Your task to perform on an android device: add a label to a message in the gmail app Image 0: 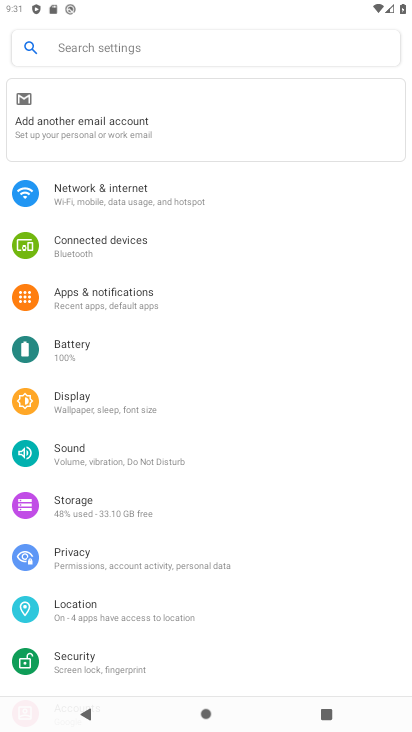
Step 0: press home button
Your task to perform on an android device: add a label to a message in the gmail app Image 1: 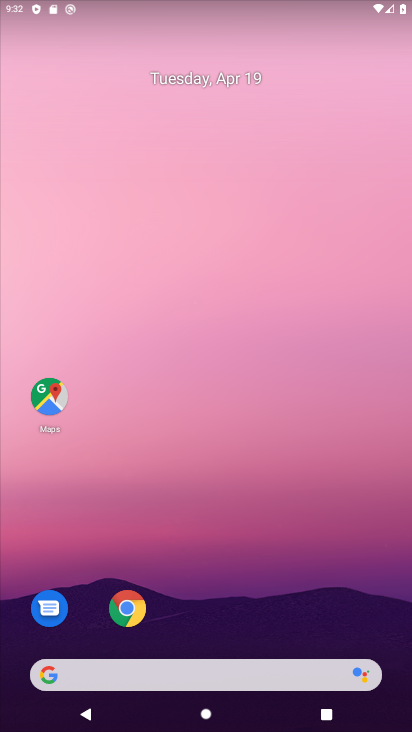
Step 1: drag from (217, 650) to (217, 46)
Your task to perform on an android device: add a label to a message in the gmail app Image 2: 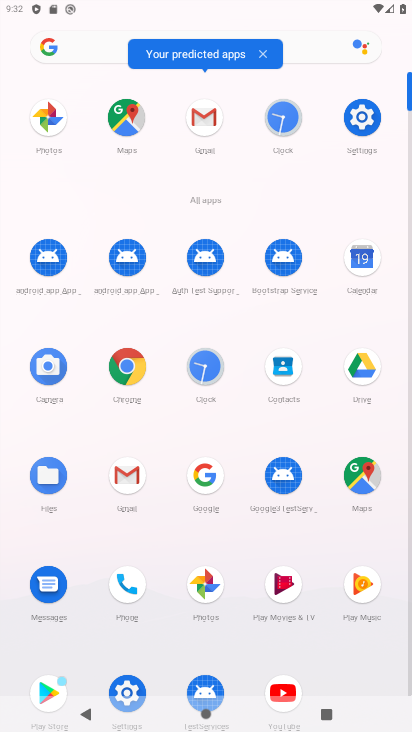
Step 2: click (126, 477)
Your task to perform on an android device: add a label to a message in the gmail app Image 3: 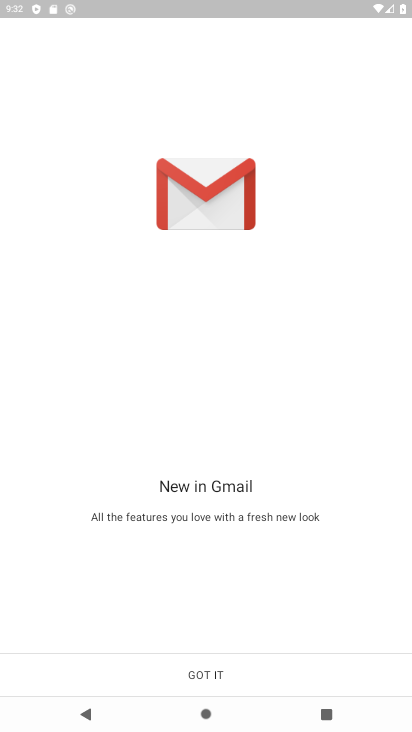
Step 3: click (206, 669)
Your task to perform on an android device: add a label to a message in the gmail app Image 4: 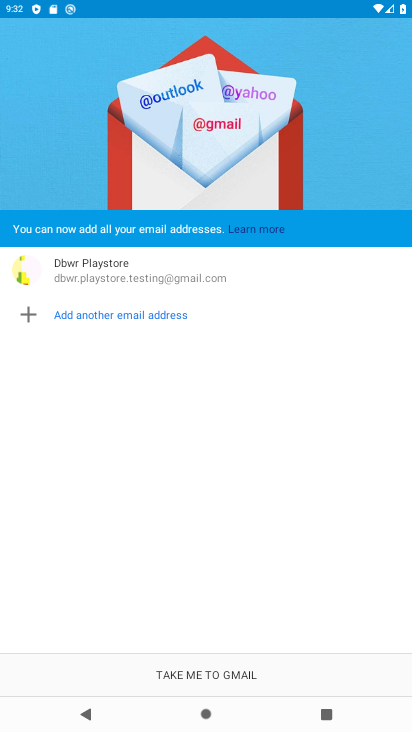
Step 4: click (227, 669)
Your task to perform on an android device: add a label to a message in the gmail app Image 5: 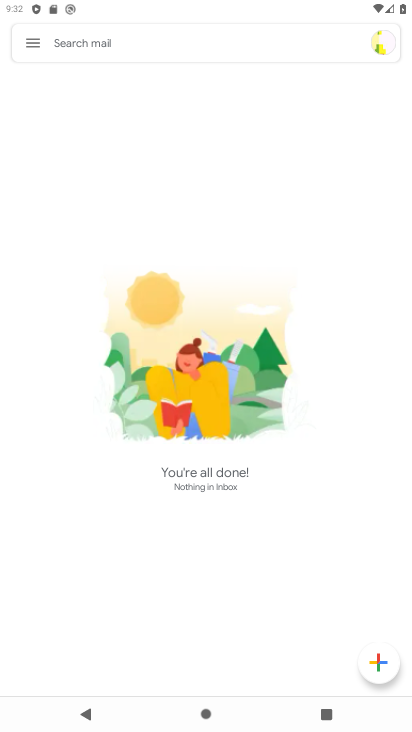
Step 5: task complete